Your task to perform on an android device: turn on location history Image 0: 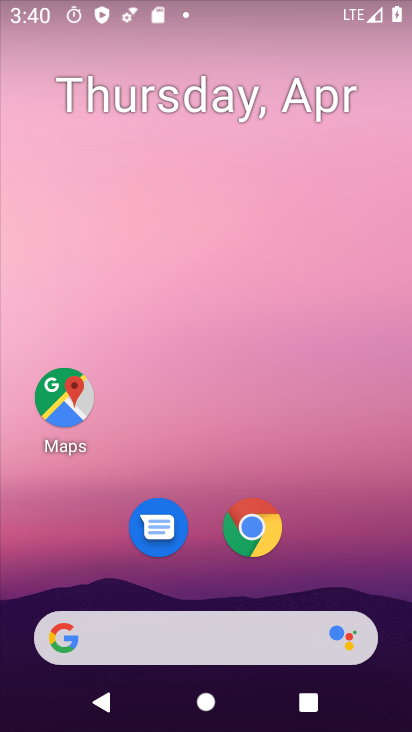
Step 0: drag from (339, 510) to (323, 149)
Your task to perform on an android device: turn on location history Image 1: 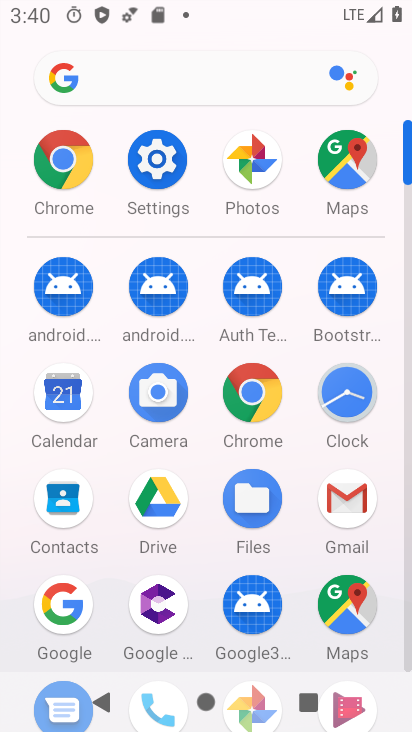
Step 1: click (156, 163)
Your task to perform on an android device: turn on location history Image 2: 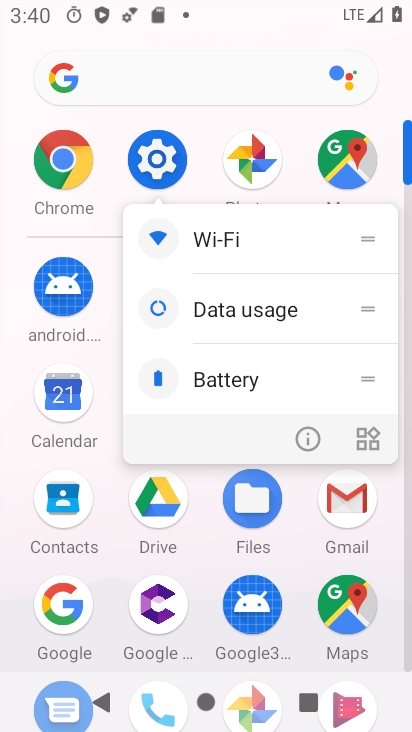
Step 2: click (156, 163)
Your task to perform on an android device: turn on location history Image 3: 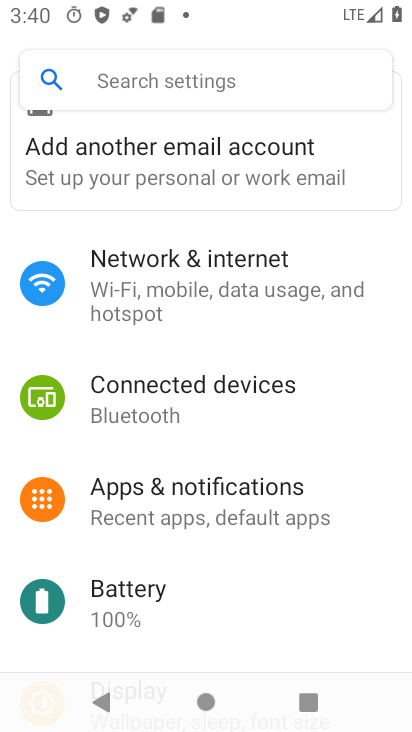
Step 3: drag from (199, 608) to (296, 179)
Your task to perform on an android device: turn on location history Image 4: 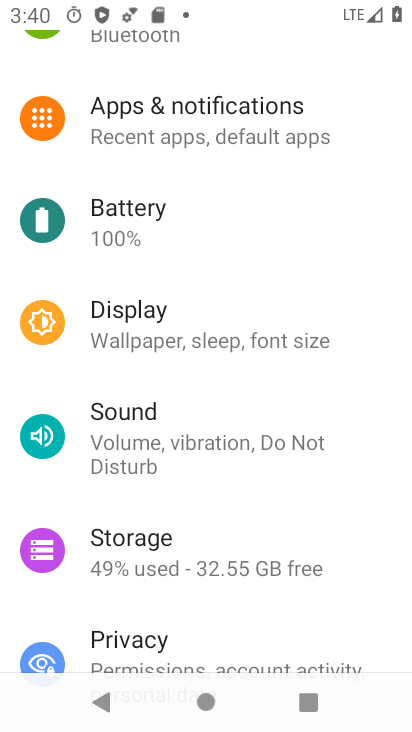
Step 4: drag from (292, 553) to (303, 283)
Your task to perform on an android device: turn on location history Image 5: 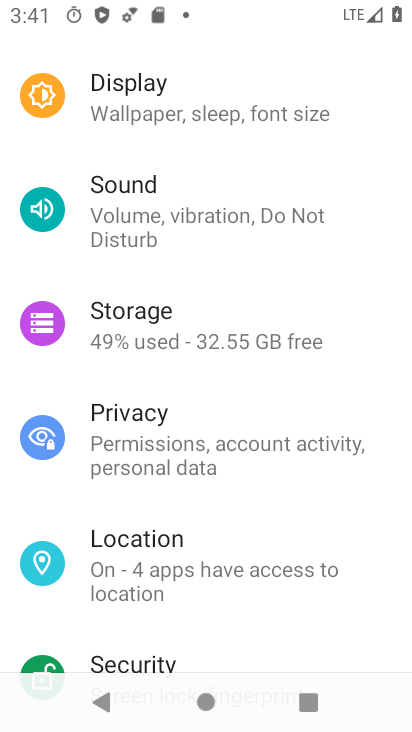
Step 5: click (145, 566)
Your task to perform on an android device: turn on location history Image 6: 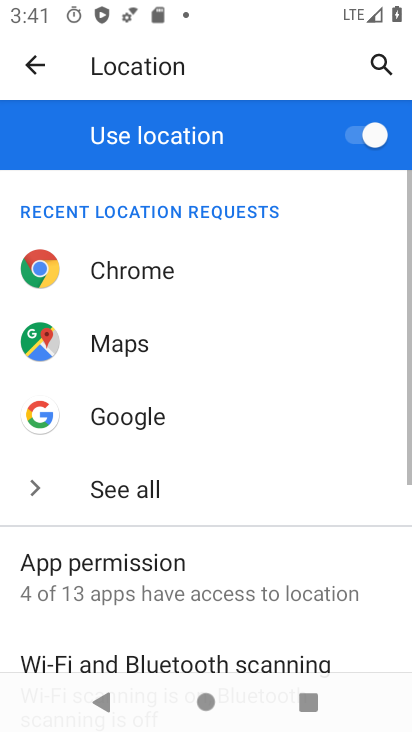
Step 6: drag from (229, 618) to (270, 216)
Your task to perform on an android device: turn on location history Image 7: 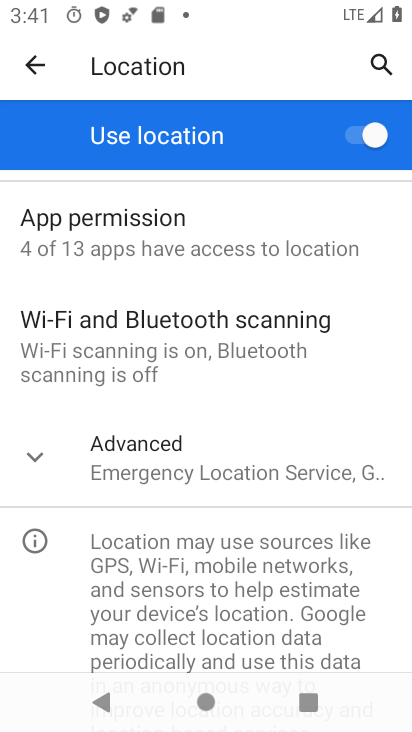
Step 7: click (176, 465)
Your task to perform on an android device: turn on location history Image 8: 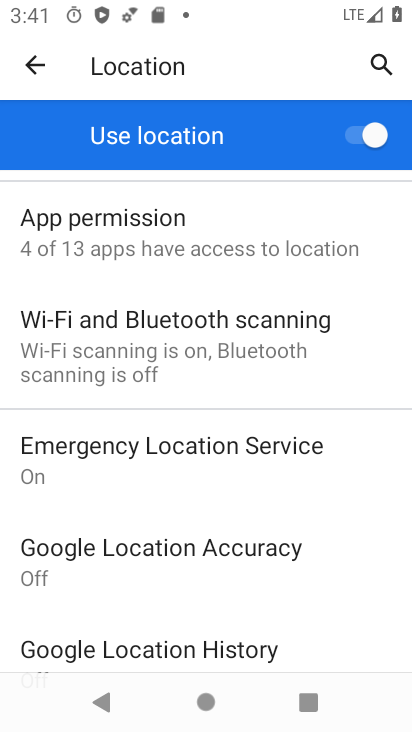
Step 8: drag from (259, 586) to (273, 334)
Your task to perform on an android device: turn on location history Image 9: 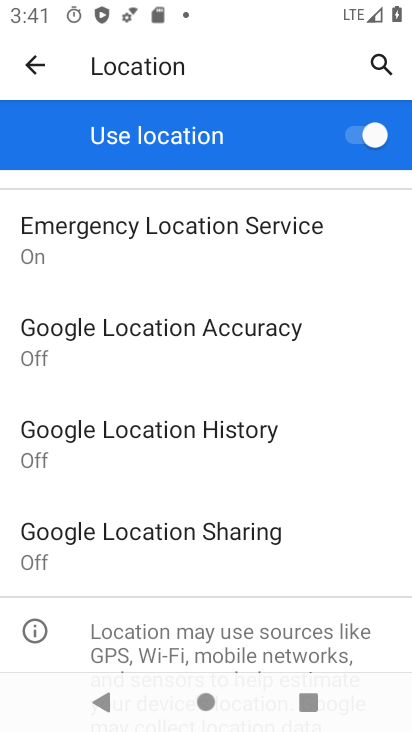
Step 9: click (190, 431)
Your task to perform on an android device: turn on location history Image 10: 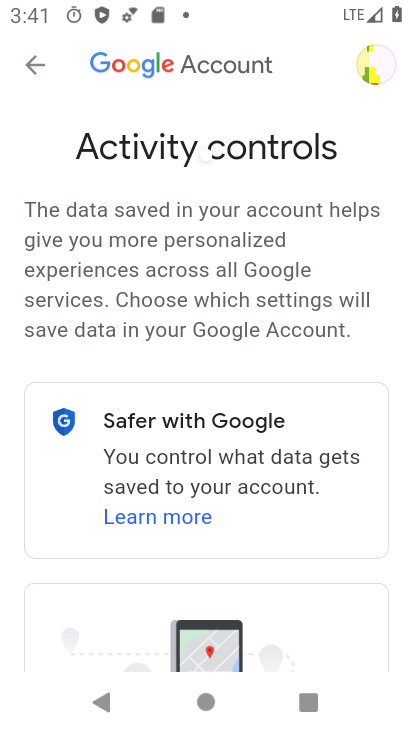
Step 10: task complete